Your task to perform on an android device: manage bookmarks in the chrome app Image 0: 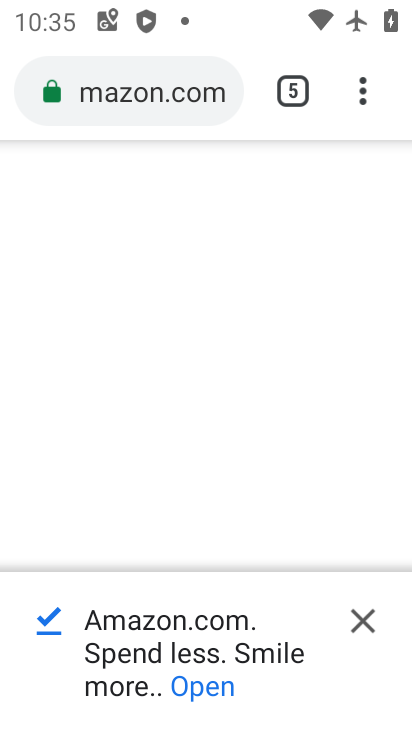
Step 0: drag from (361, 573) to (187, 141)
Your task to perform on an android device: manage bookmarks in the chrome app Image 1: 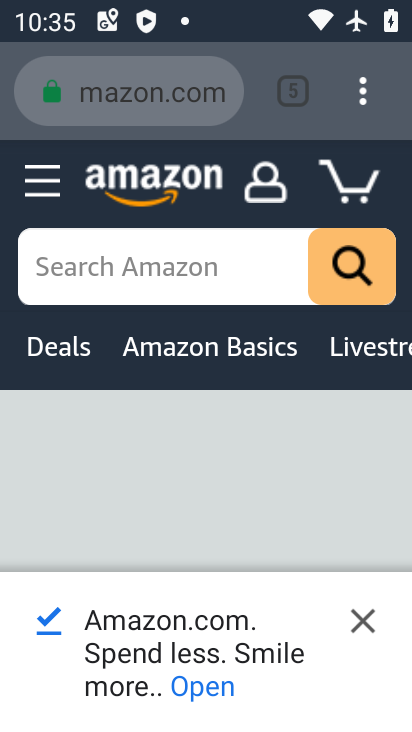
Step 1: click (354, 620)
Your task to perform on an android device: manage bookmarks in the chrome app Image 2: 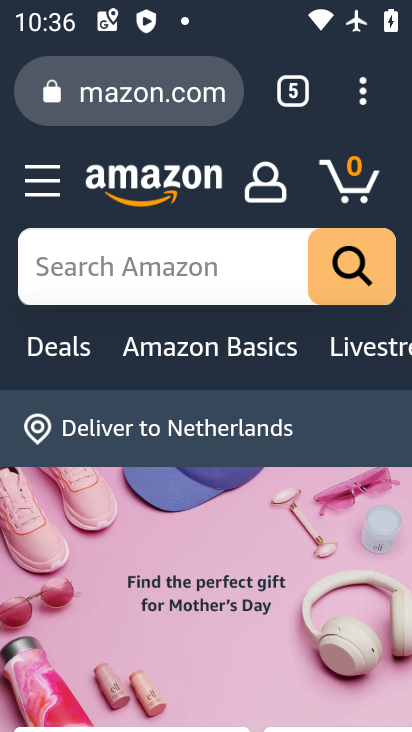
Step 2: drag from (365, 95) to (99, 335)
Your task to perform on an android device: manage bookmarks in the chrome app Image 3: 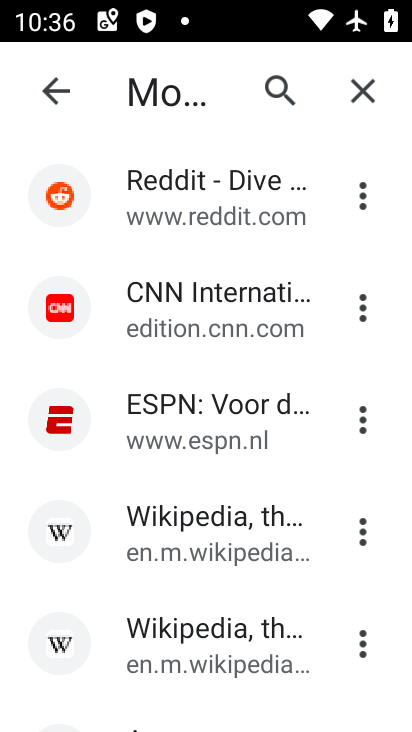
Step 3: click (102, 331)
Your task to perform on an android device: manage bookmarks in the chrome app Image 4: 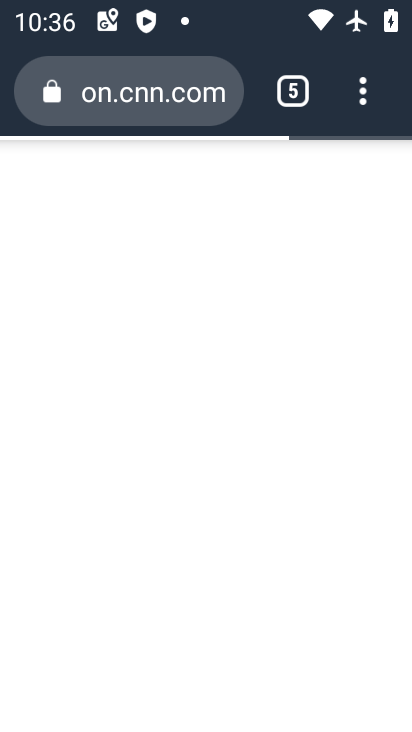
Step 4: click (361, 104)
Your task to perform on an android device: manage bookmarks in the chrome app Image 5: 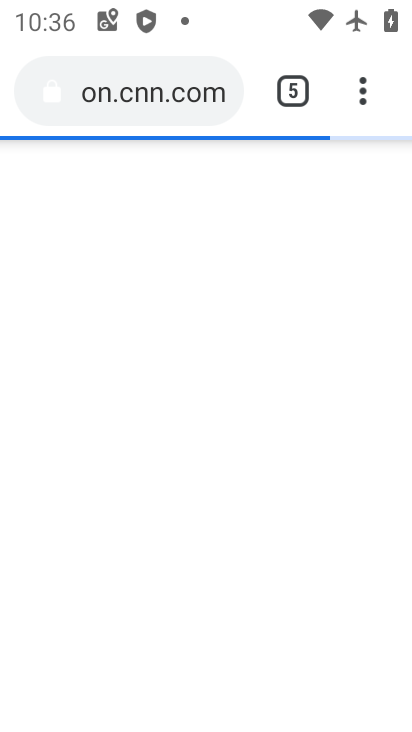
Step 5: click (362, 103)
Your task to perform on an android device: manage bookmarks in the chrome app Image 6: 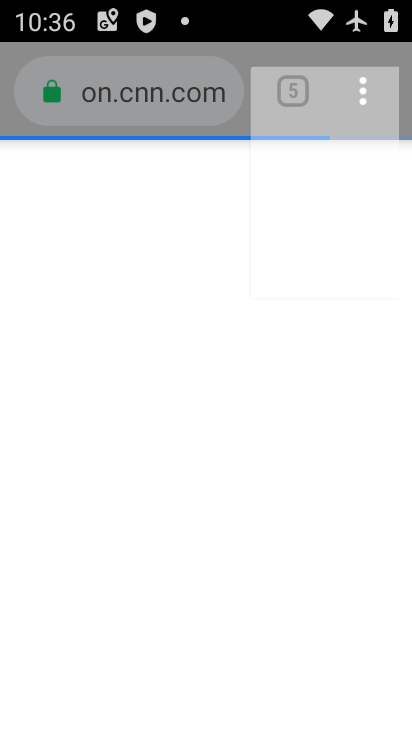
Step 6: click (363, 103)
Your task to perform on an android device: manage bookmarks in the chrome app Image 7: 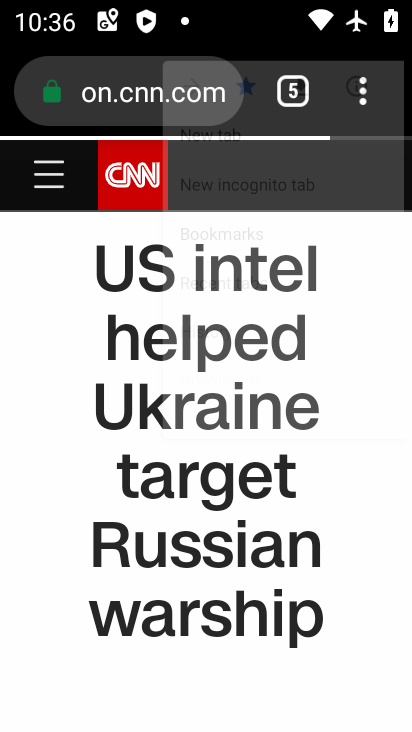
Step 7: click (363, 103)
Your task to perform on an android device: manage bookmarks in the chrome app Image 8: 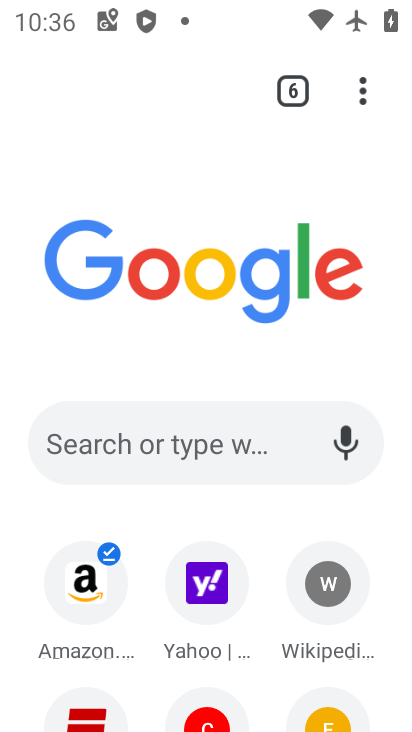
Step 8: click (363, 91)
Your task to perform on an android device: manage bookmarks in the chrome app Image 9: 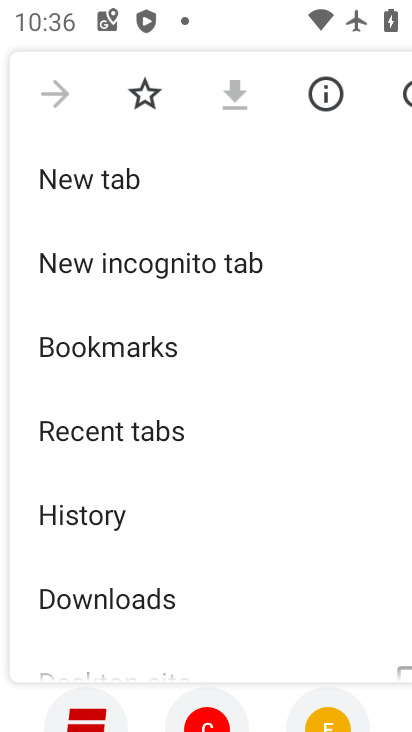
Step 9: drag from (146, 263) to (163, 294)
Your task to perform on an android device: manage bookmarks in the chrome app Image 10: 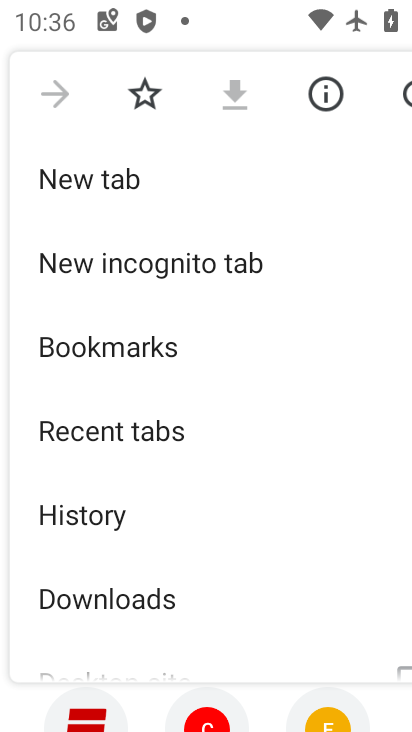
Step 10: click (60, 110)
Your task to perform on an android device: manage bookmarks in the chrome app Image 11: 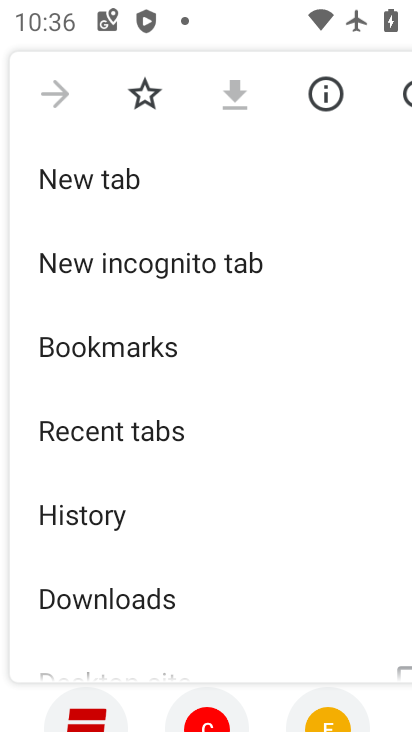
Step 11: click (60, 110)
Your task to perform on an android device: manage bookmarks in the chrome app Image 12: 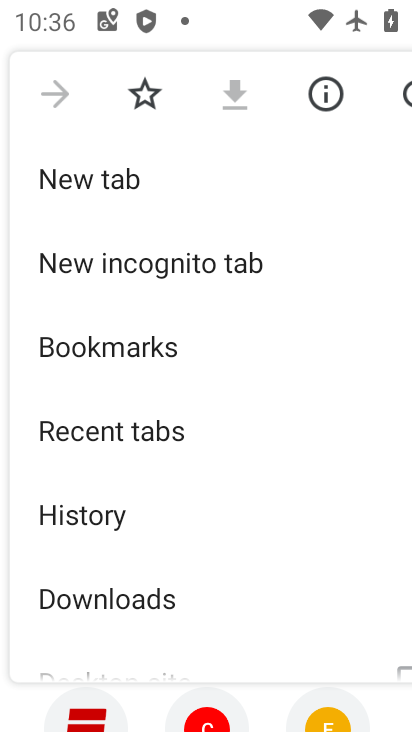
Step 12: click (60, 110)
Your task to perform on an android device: manage bookmarks in the chrome app Image 13: 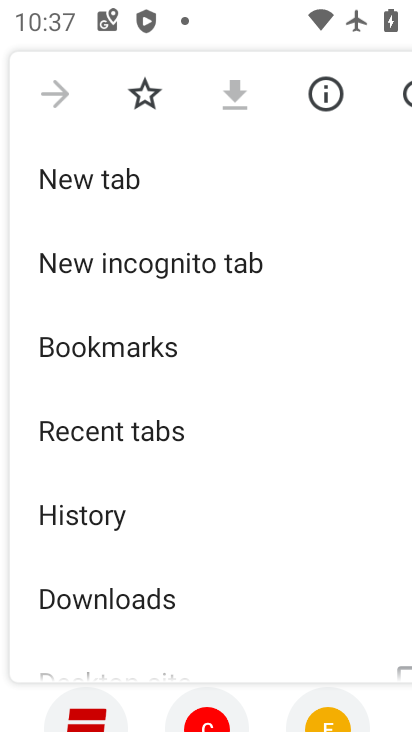
Step 13: click (108, 359)
Your task to perform on an android device: manage bookmarks in the chrome app Image 14: 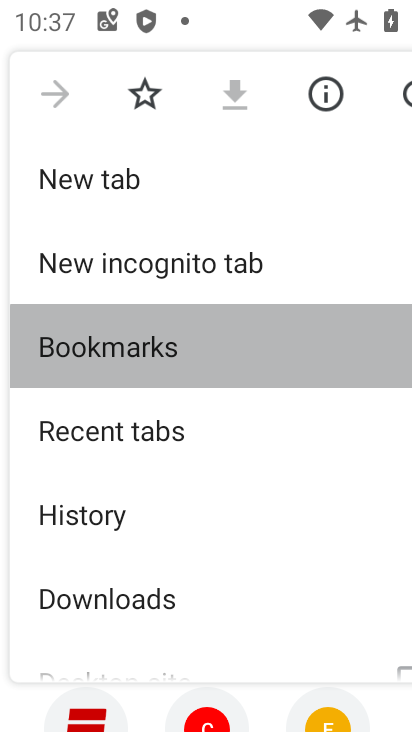
Step 14: click (110, 357)
Your task to perform on an android device: manage bookmarks in the chrome app Image 15: 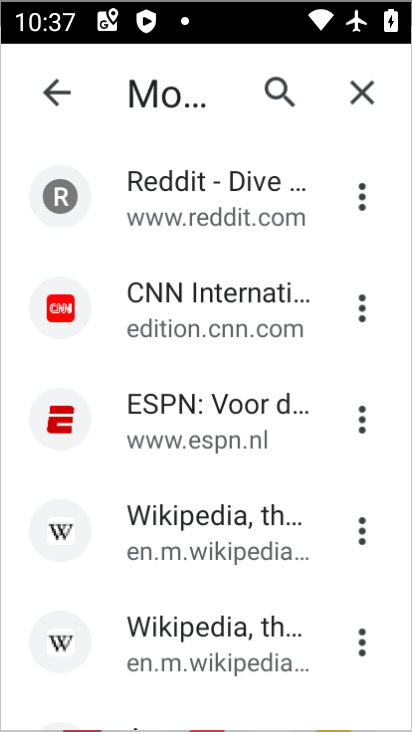
Step 15: click (111, 357)
Your task to perform on an android device: manage bookmarks in the chrome app Image 16: 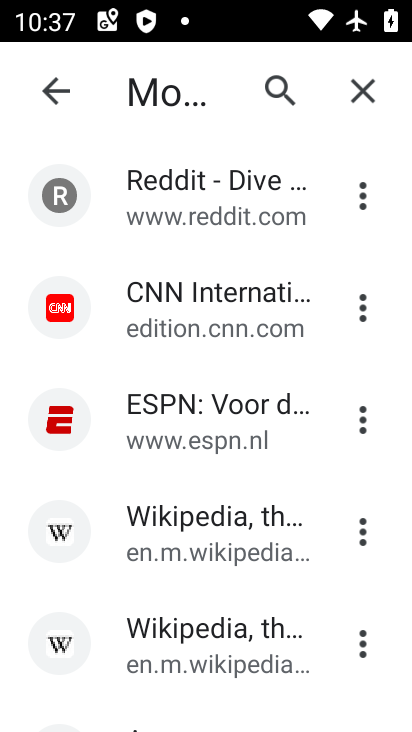
Step 16: click (113, 356)
Your task to perform on an android device: manage bookmarks in the chrome app Image 17: 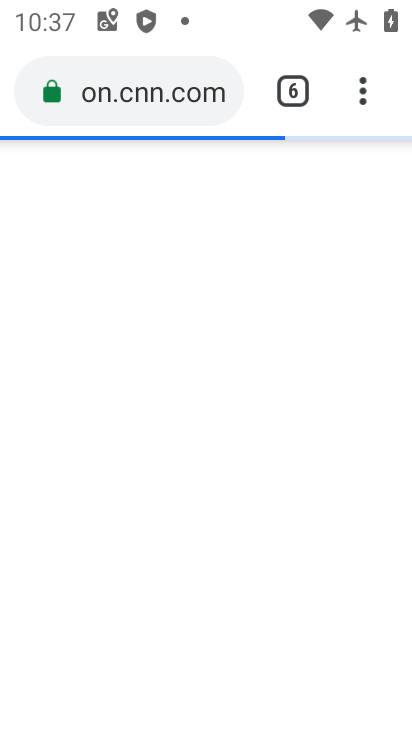
Step 17: click (51, 86)
Your task to perform on an android device: manage bookmarks in the chrome app Image 18: 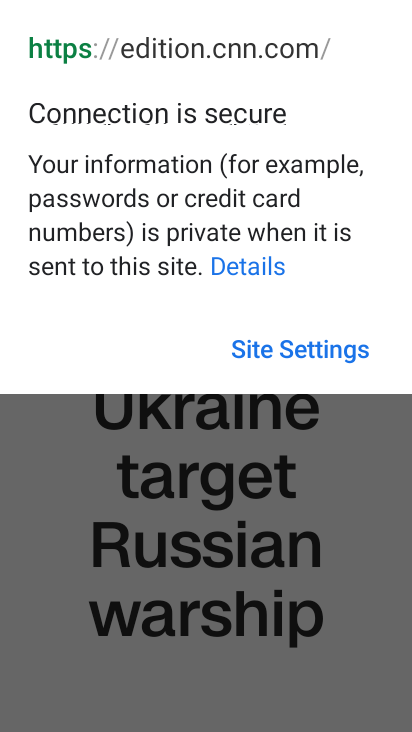
Step 18: click (303, 344)
Your task to perform on an android device: manage bookmarks in the chrome app Image 19: 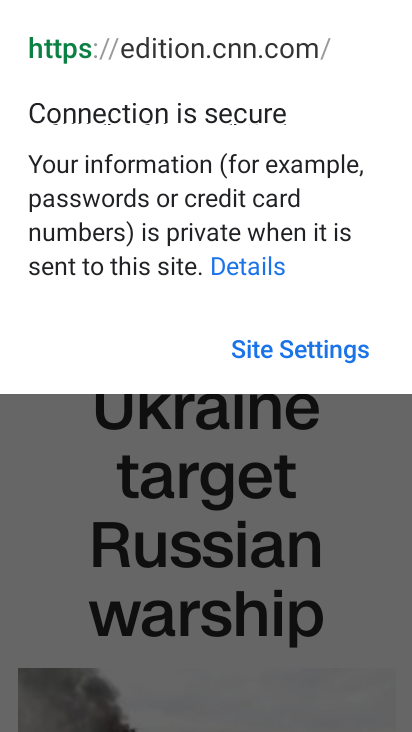
Step 19: click (301, 345)
Your task to perform on an android device: manage bookmarks in the chrome app Image 20: 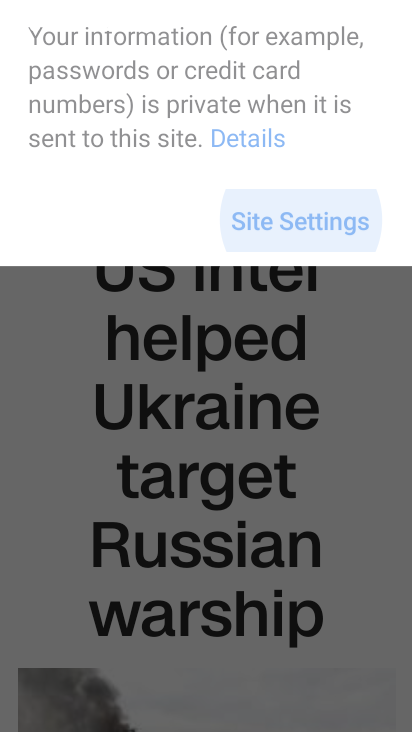
Step 20: click (301, 345)
Your task to perform on an android device: manage bookmarks in the chrome app Image 21: 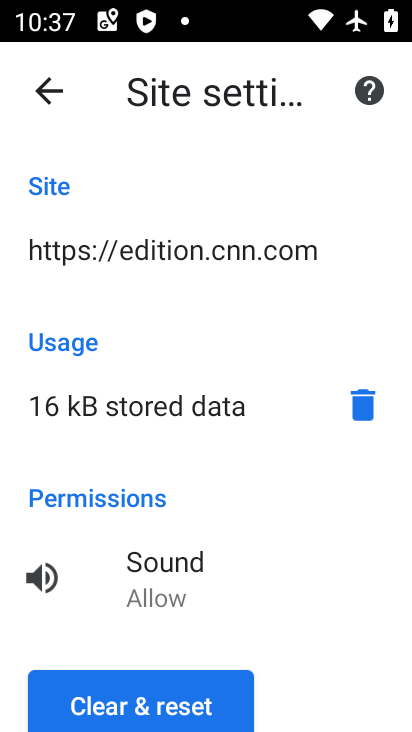
Step 21: click (41, 85)
Your task to perform on an android device: manage bookmarks in the chrome app Image 22: 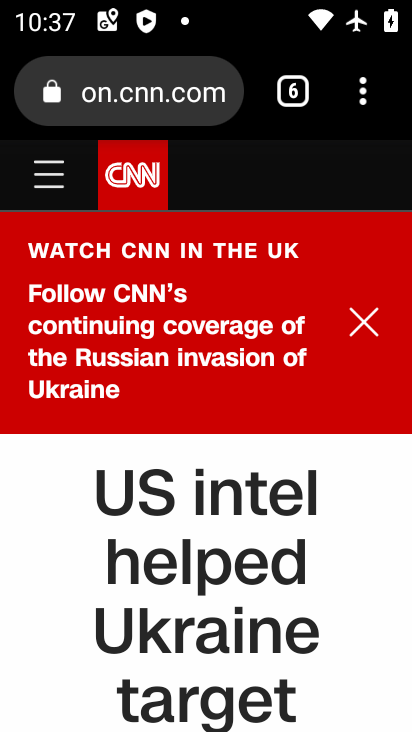
Step 22: click (367, 90)
Your task to perform on an android device: manage bookmarks in the chrome app Image 23: 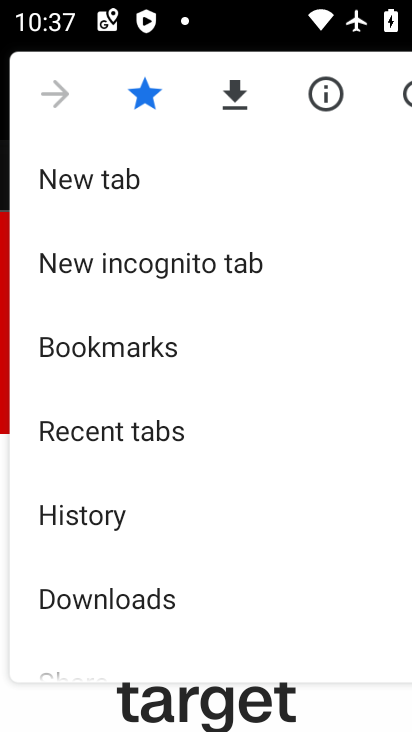
Step 23: click (122, 352)
Your task to perform on an android device: manage bookmarks in the chrome app Image 24: 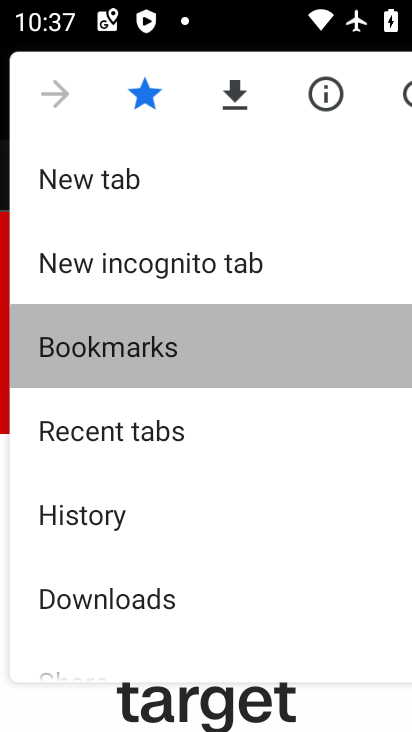
Step 24: click (112, 352)
Your task to perform on an android device: manage bookmarks in the chrome app Image 25: 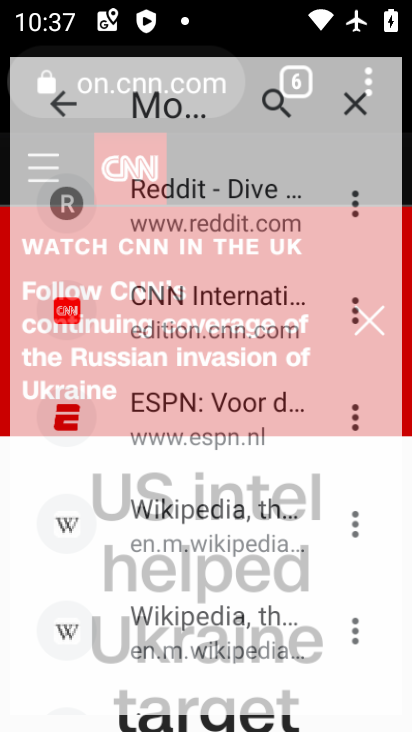
Step 25: click (109, 350)
Your task to perform on an android device: manage bookmarks in the chrome app Image 26: 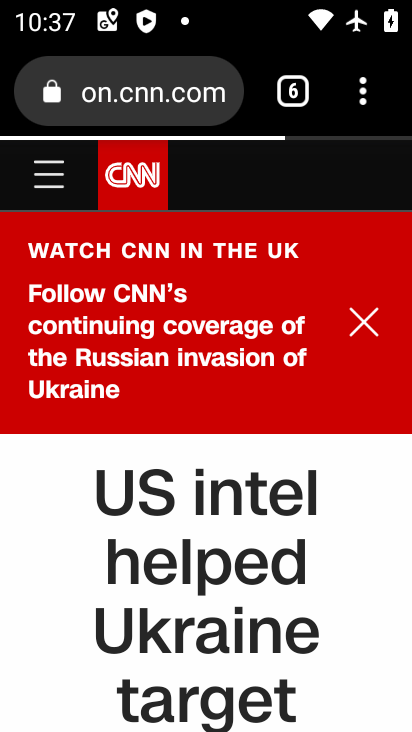
Step 26: click (360, 93)
Your task to perform on an android device: manage bookmarks in the chrome app Image 27: 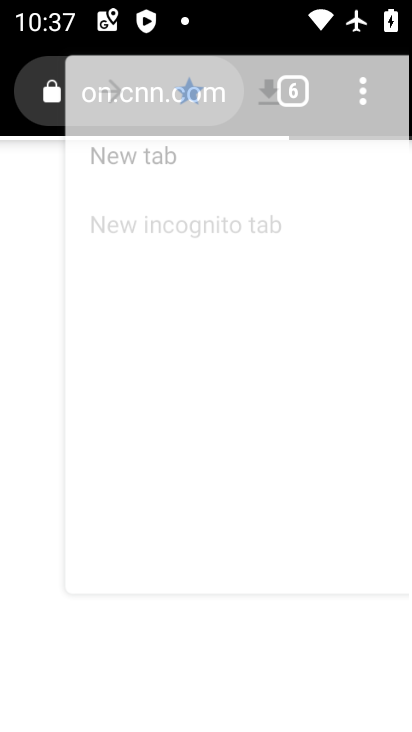
Step 27: click (360, 93)
Your task to perform on an android device: manage bookmarks in the chrome app Image 28: 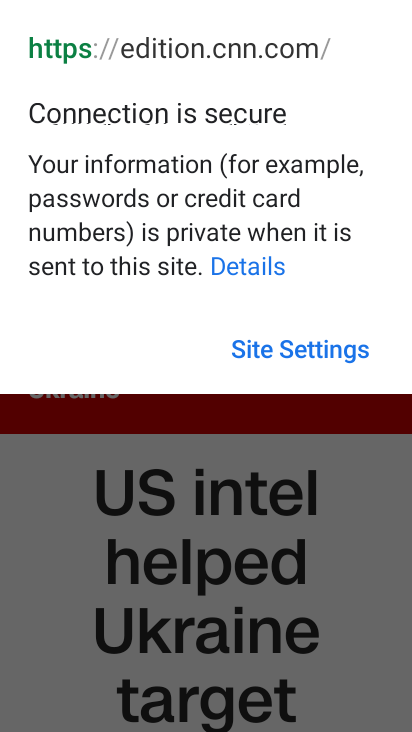
Step 28: click (313, 368)
Your task to perform on an android device: manage bookmarks in the chrome app Image 29: 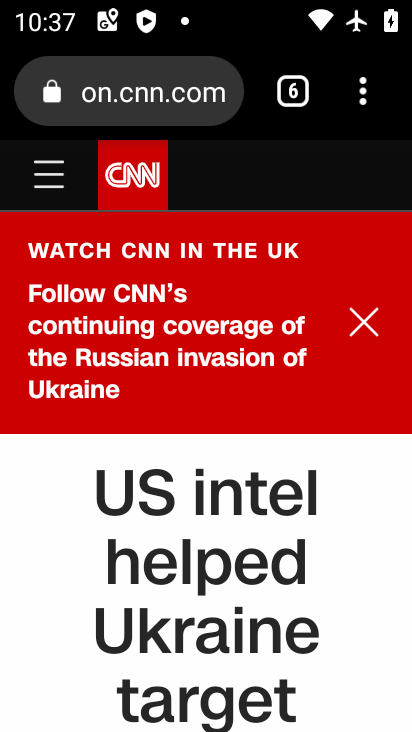
Step 29: click (306, 351)
Your task to perform on an android device: manage bookmarks in the chrome app Image 30: 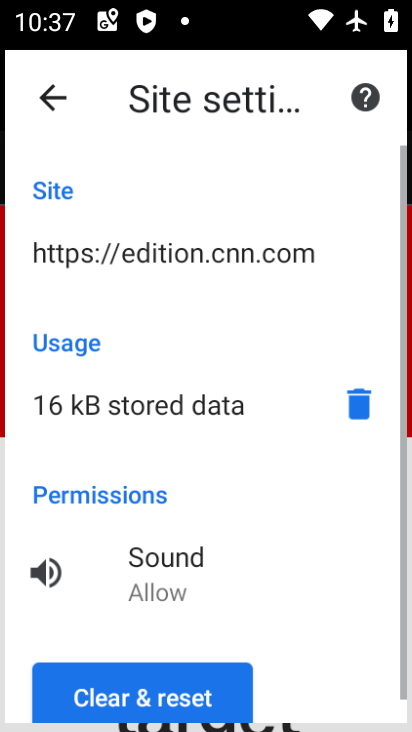
Step 30: click (306, 351)
Your task to perform on an android device: manage bookmarks in the chrome app Image 31: 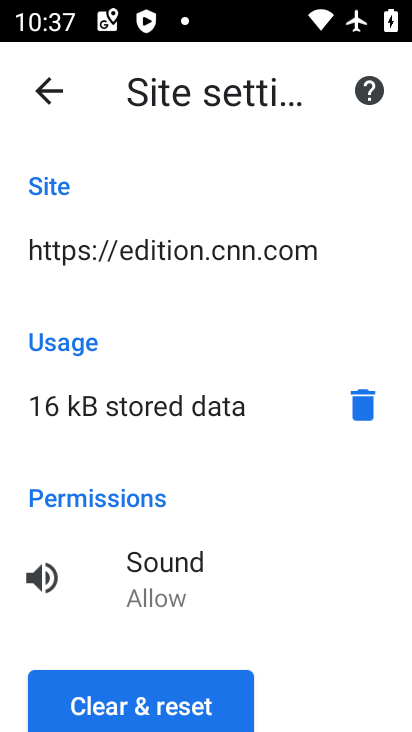
Step 31: click (46, 89)
Your task to perform on an android device: manage bookmarks in the chrome app Image 32: 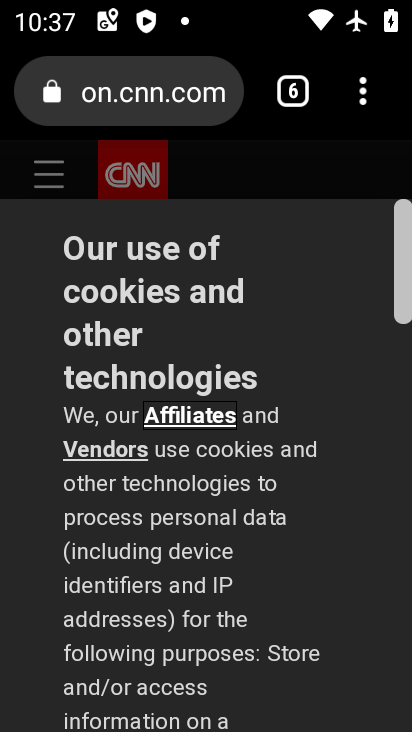
Step 32: click (365, 88)
Your task to perform on an android device: manage bookmarks in the chrome app Image 33: 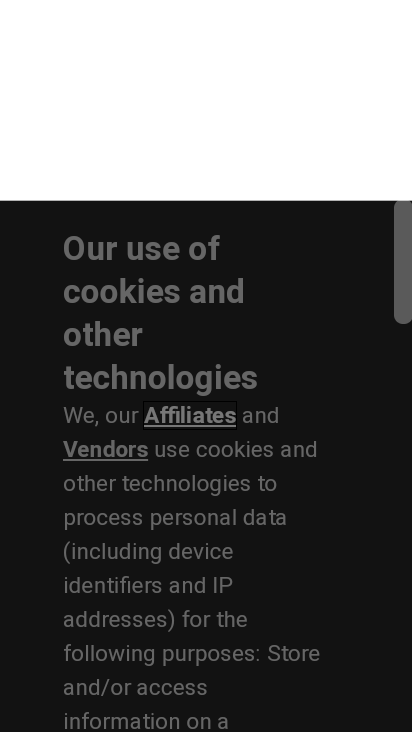
Step 33: click (365, 88)
Your task to perform on an android device: manage bookmarks in the chrome app Image 34: 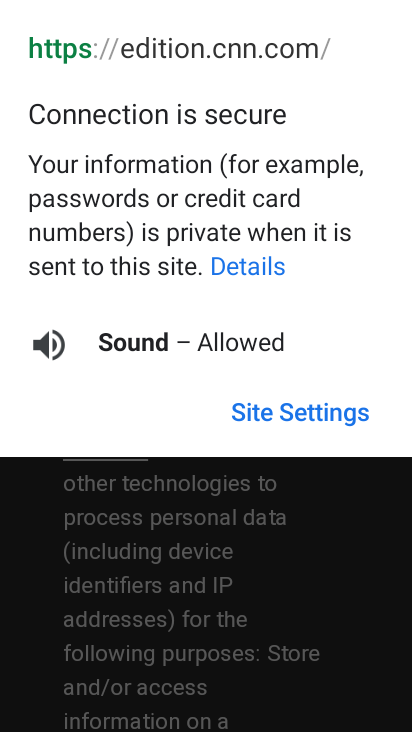
Step 34: task complete